Your task to perform on an android device: turn on wifi Image 0: 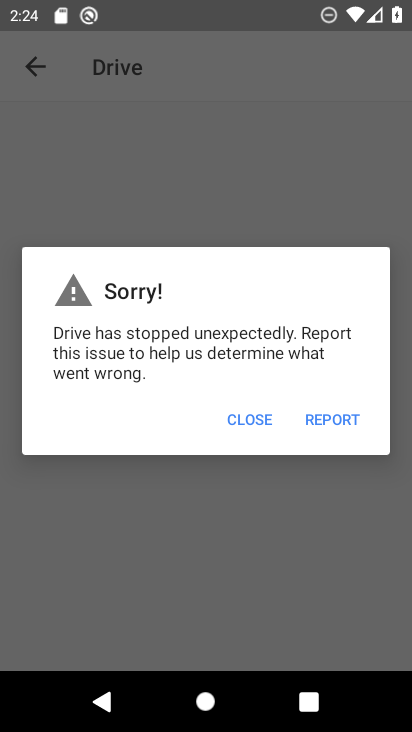
Step 0: press home button
Your task to perform on an android device: turn on wifi Image 1: 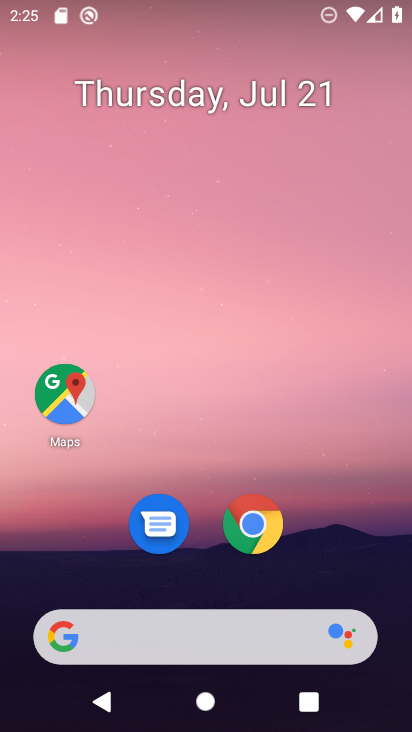
Step 1: drag from (217, 647) to (321, 47)
Your task to perform on an android device: turn on wifi Image 2: 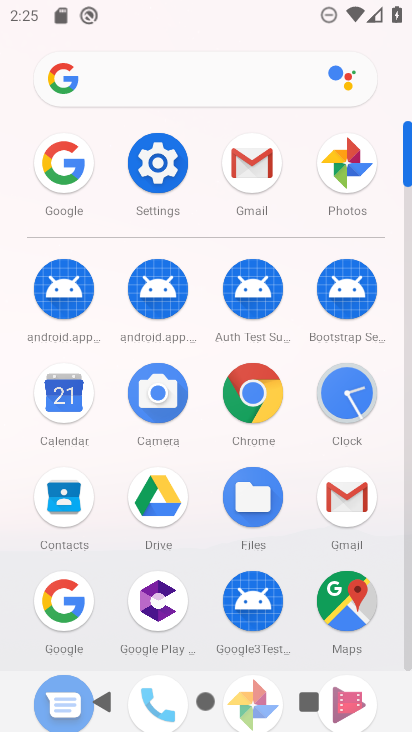
Step 2: click (159, 153)
Your task to perform on an android device: turn on wifi Image 3: 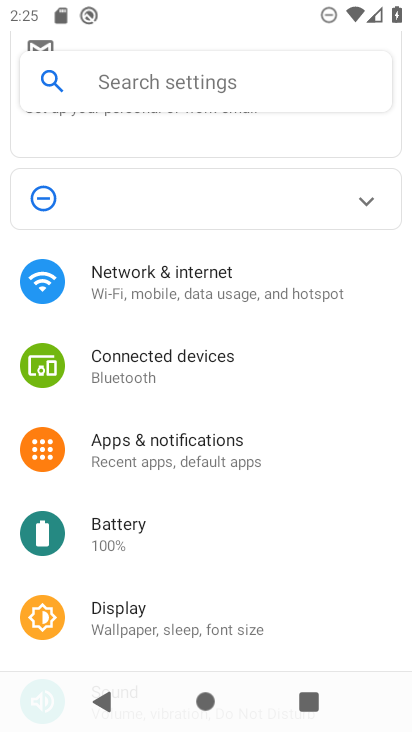
Step 3: click (232, 287)
Your task to perform on an android device: turn on wifi Image 4: 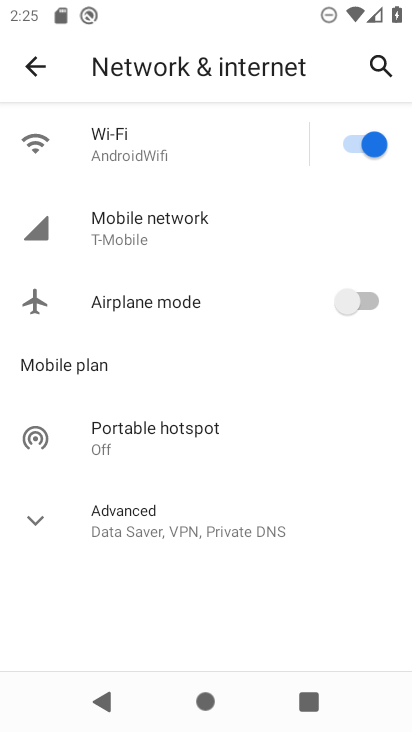
Step 4: task complete